Your task to perform on an android device: Find coffee shops on Maps Image 0: 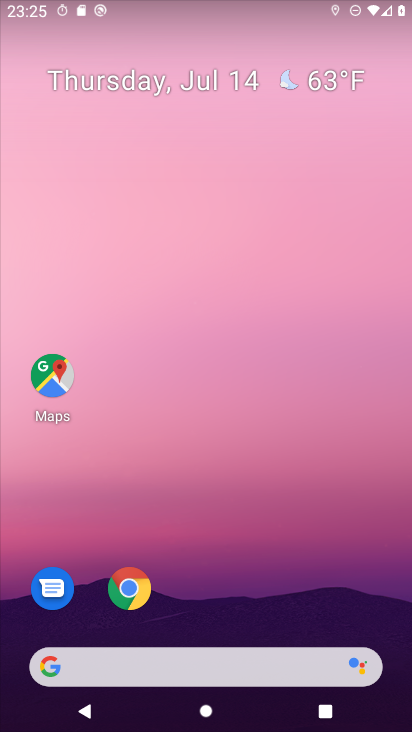
Step 0: drag from (332, 606) to (387, 120)
Your task to perform on an android device: Find coffee shops on Maps Image 1: 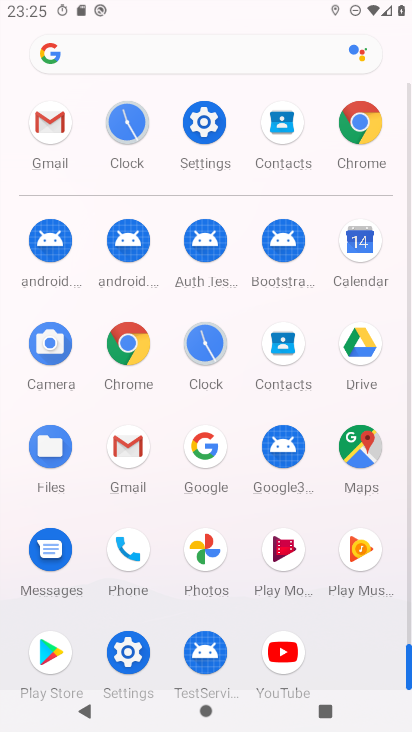
Step 1: click (354, 452)
Your task to perform on an android device: Find coffee shops on Maps Image 2: 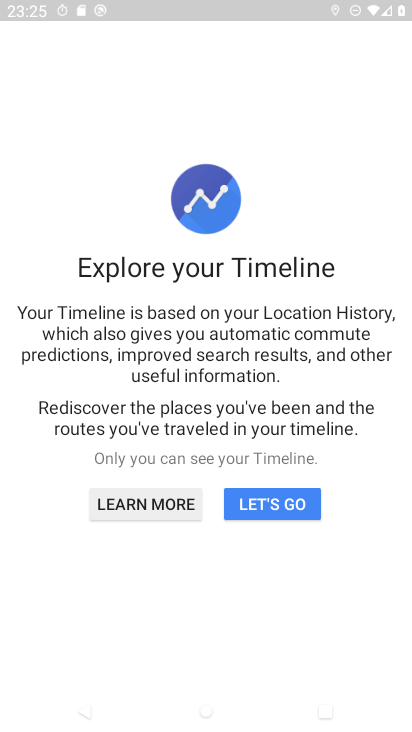
Step 2: press back button
Your task to perform on an android device: Find coffee shops on Maps Image 3: 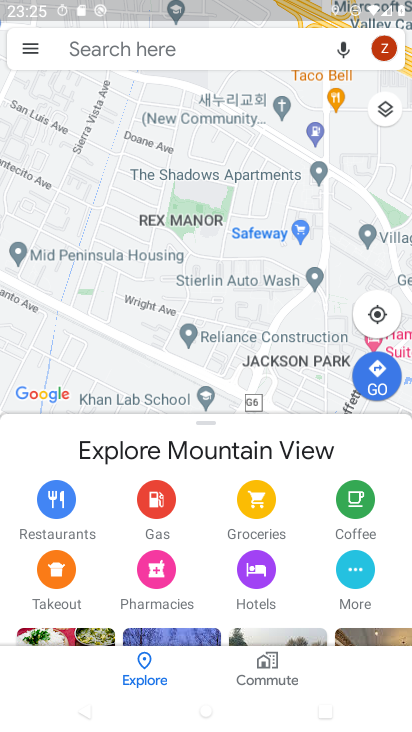
Step 3: click (182, 53)
Your task to perform on an android device: Find coffee shops on Maps Image 4: 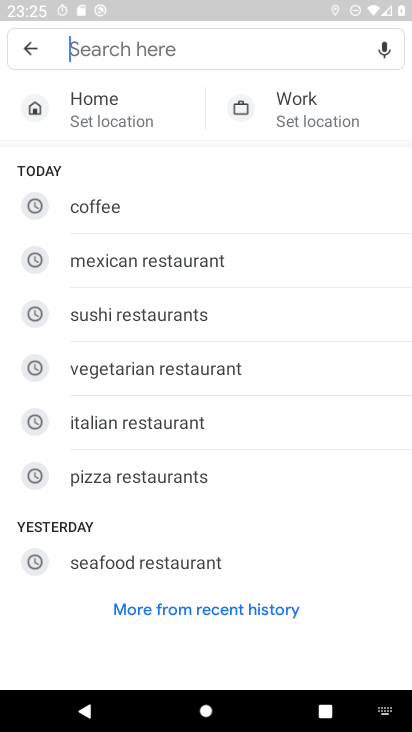
Step 4: type "coffee shops"
Your task to perform on an android device: Find coffee shops on Maps Image 5: 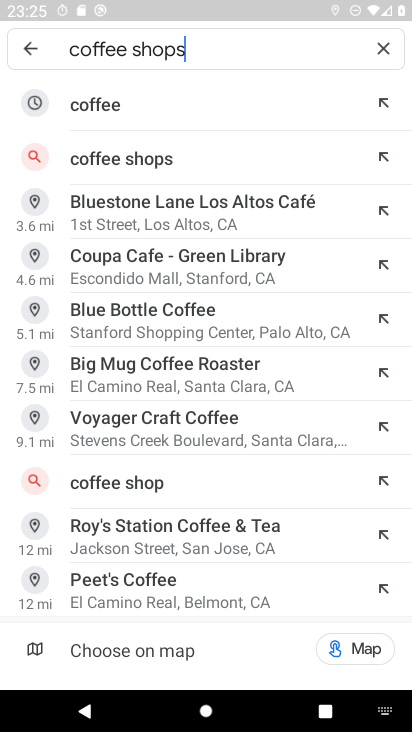
Step 5: click (179, 162)
Your task to perform on an android device: Find coffee shops on Maps Image 6: 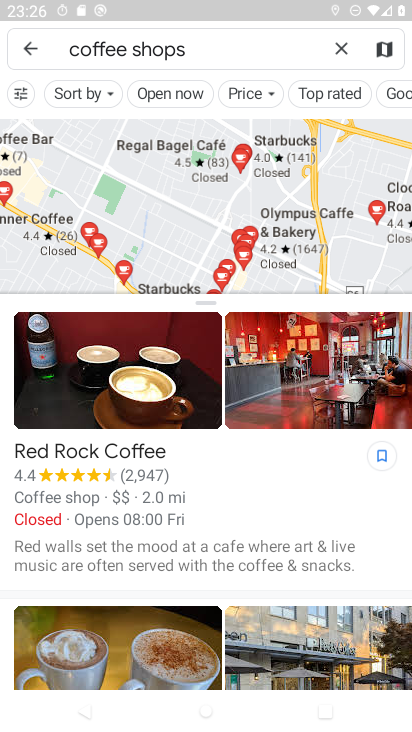
Step 6: task complete